Your task to perform on an android device: Open CNN.com Image 0: 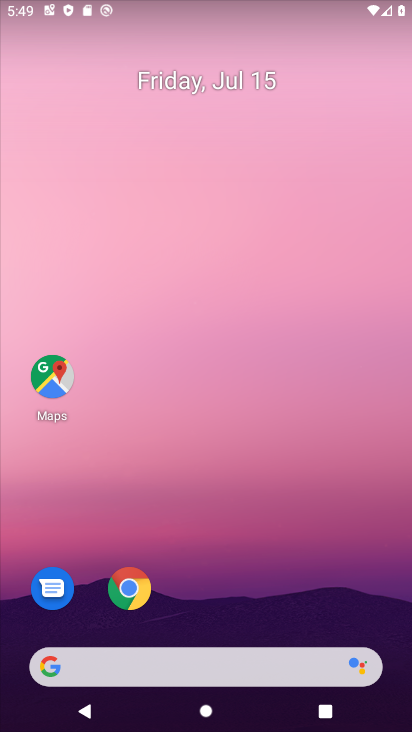
Step 0: drag from (312, 681) to (321, 3)
Your task to perform on an android device: Open CNN.com Image 1: 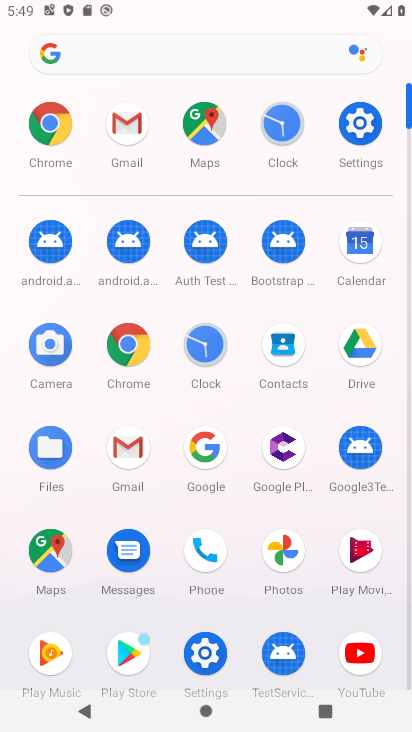
Step 1: click (132, 335)
Your task to perform on an android device: Open CNN.com Image 2: 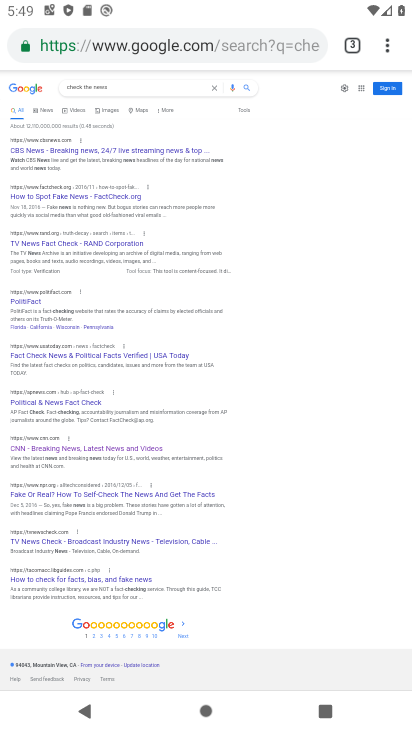
Step 2: click (251, 43)
Your task to perform on an android device: Open CNN.com Image 3: 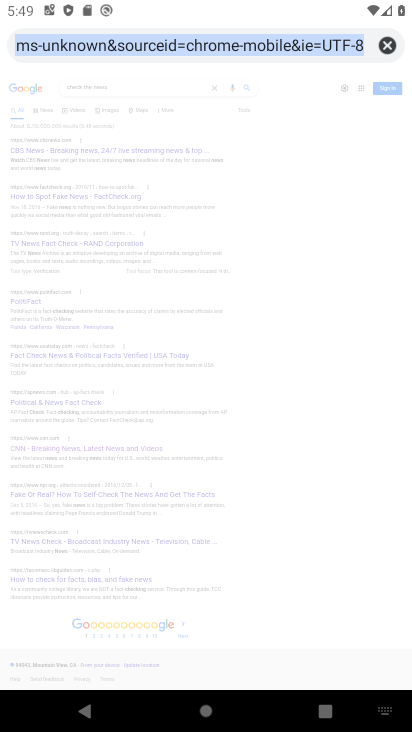
Step 3: type "cnn.com"
Your task to perform on an android device: Open CNN.com Image 4: 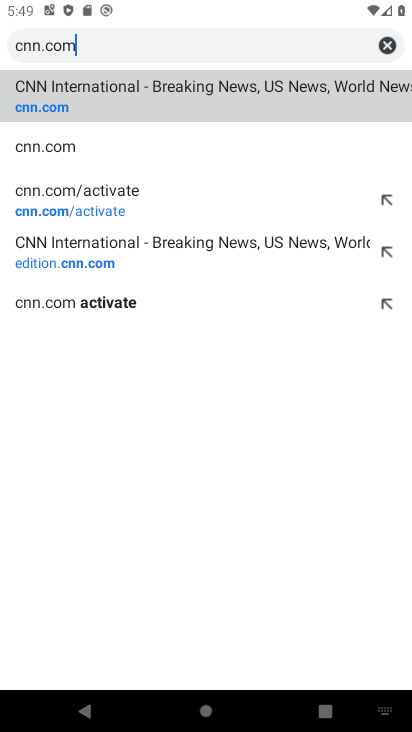
Step 4: click (147, 101)
Your task to perform on an android device: Open CNN.com Image 5: 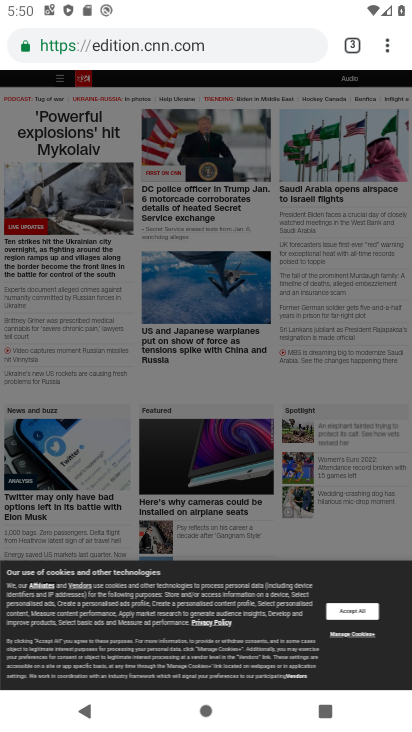
Step 5: task complete